Your task to perform on an android device: Go to Google maps Image 0: 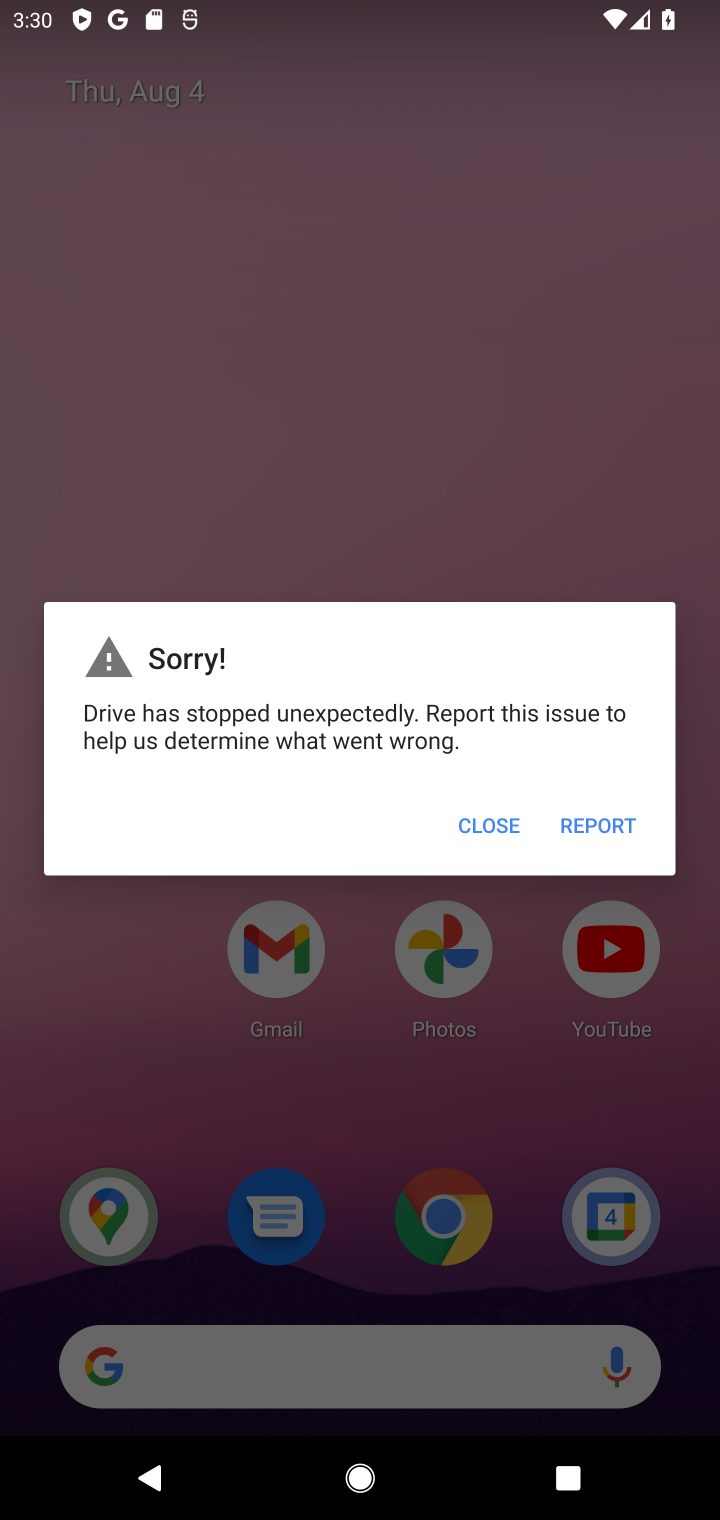
Step 0: click (478, 822)
Your task to perform on an android device: Go to Google maps Image 1: 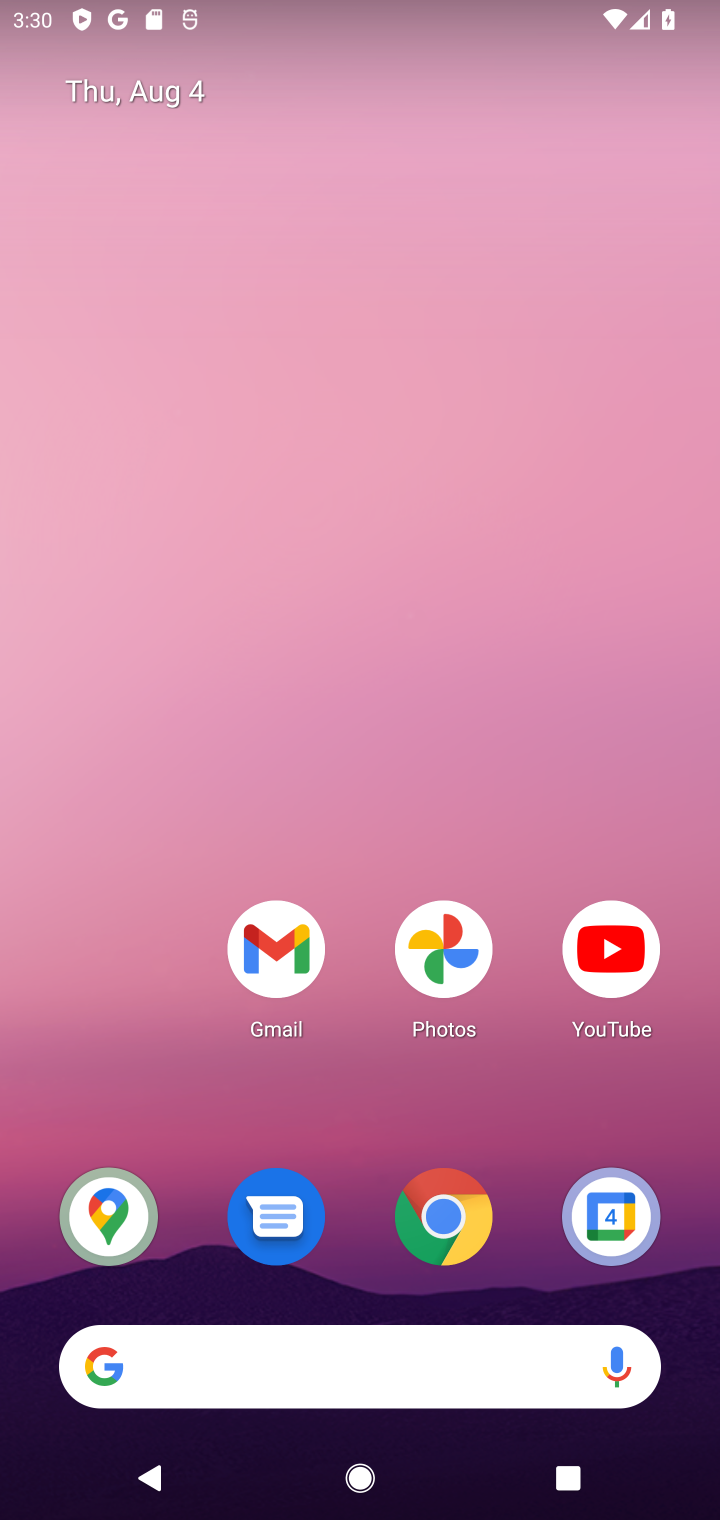
Step 1: click (100, 1200)
Your task to perform on an android device: Go to Google maps Image 2: 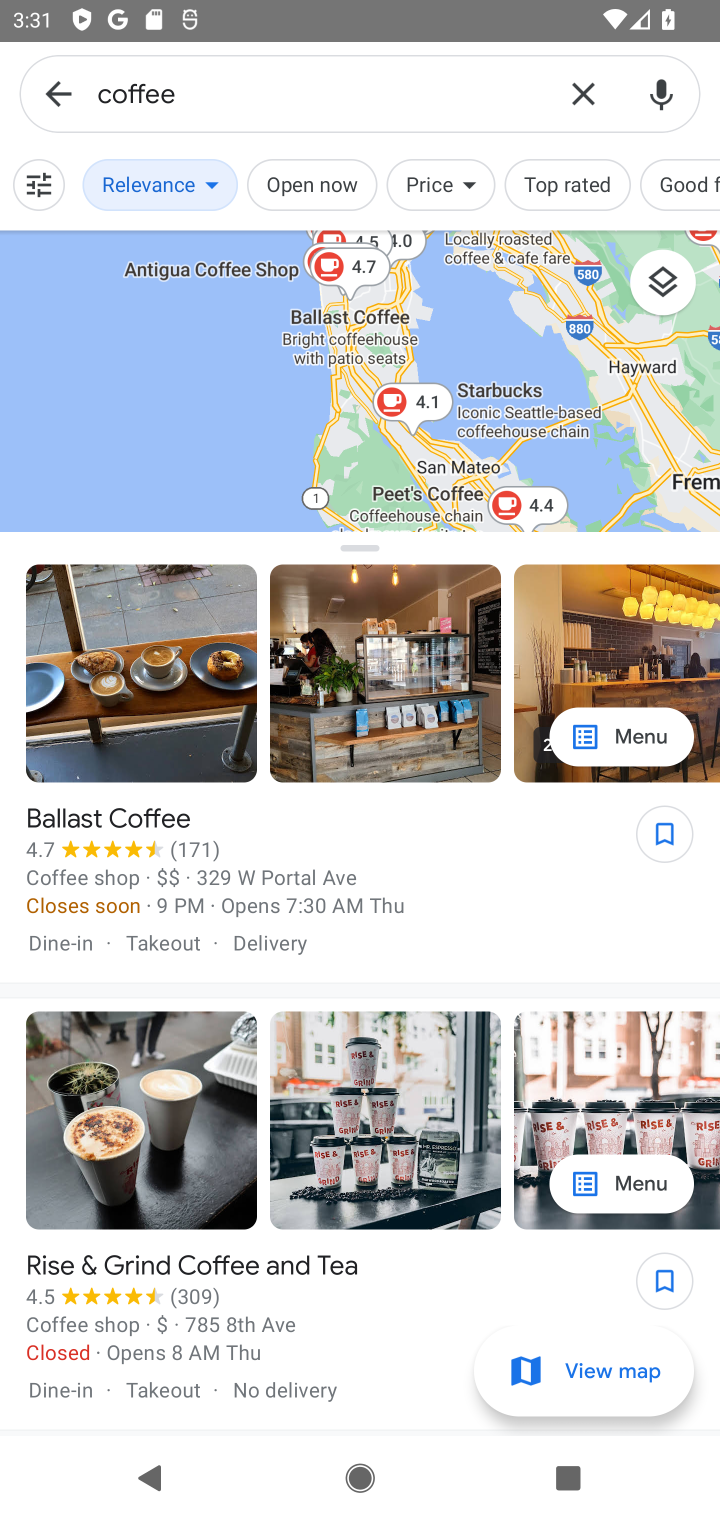
Step 2: task complete